Your task to perform on an android device: Clear the cart on bestbuy. Image 0: 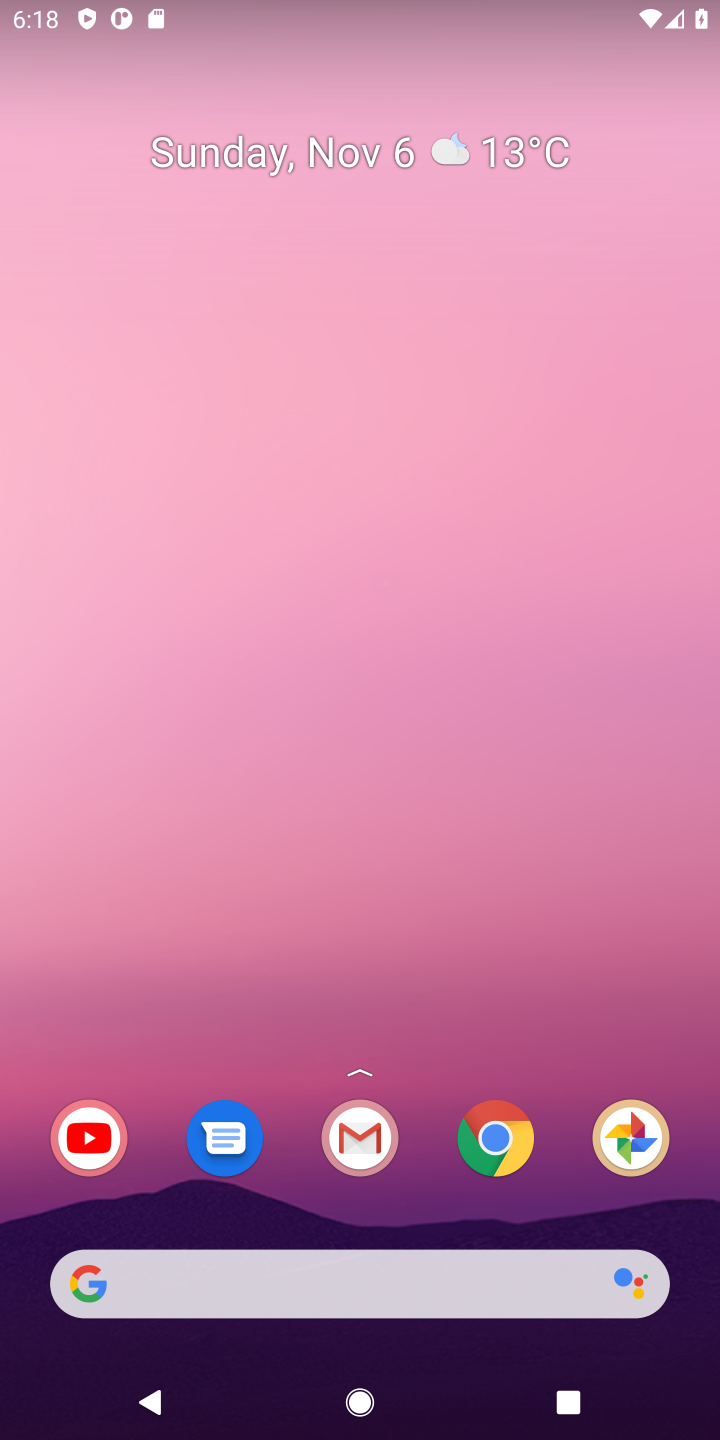
Step 0: drag from (472, 1268) to (462, 262)
Your task to perform on an android device: Clear the cart on bestbuy. Image 1: 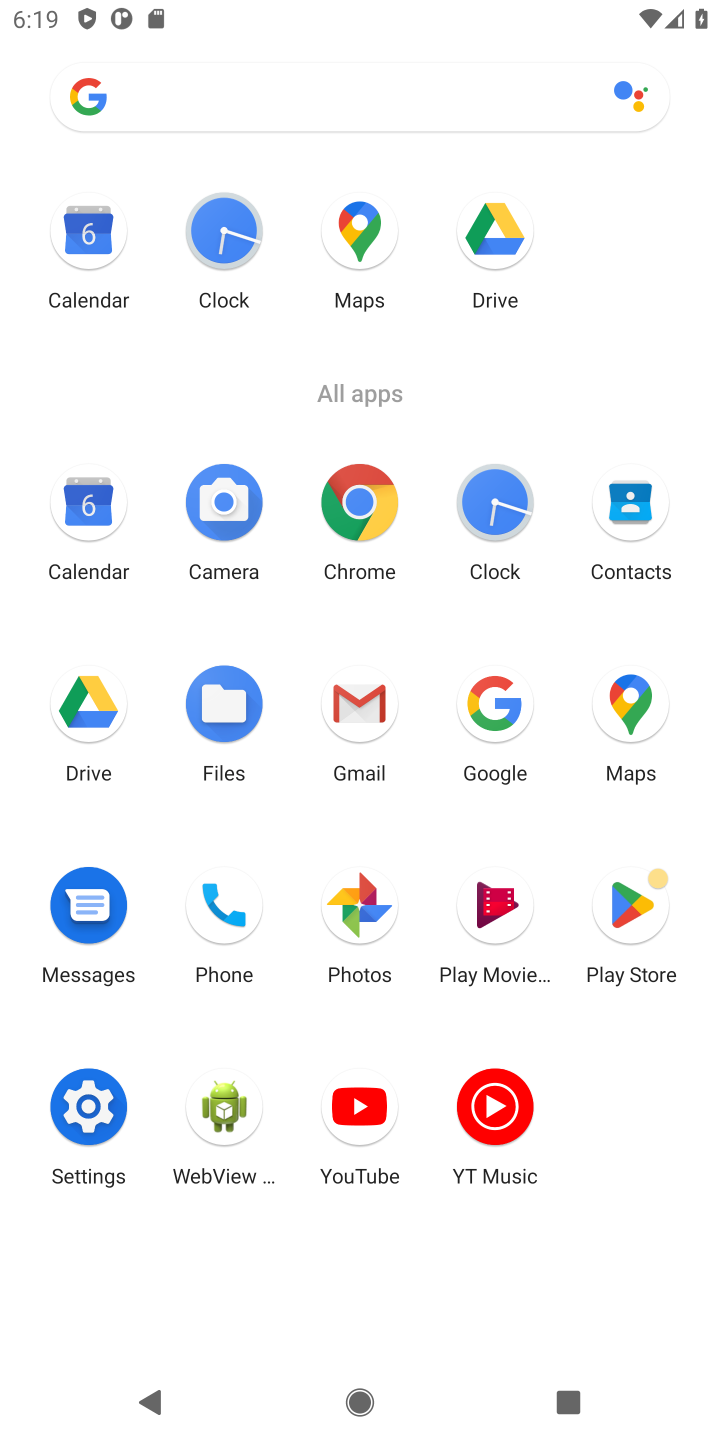
Step 1: click (515, 695)
Your task to perform on an android device: Clear the cart on bestbuy. Image 2: 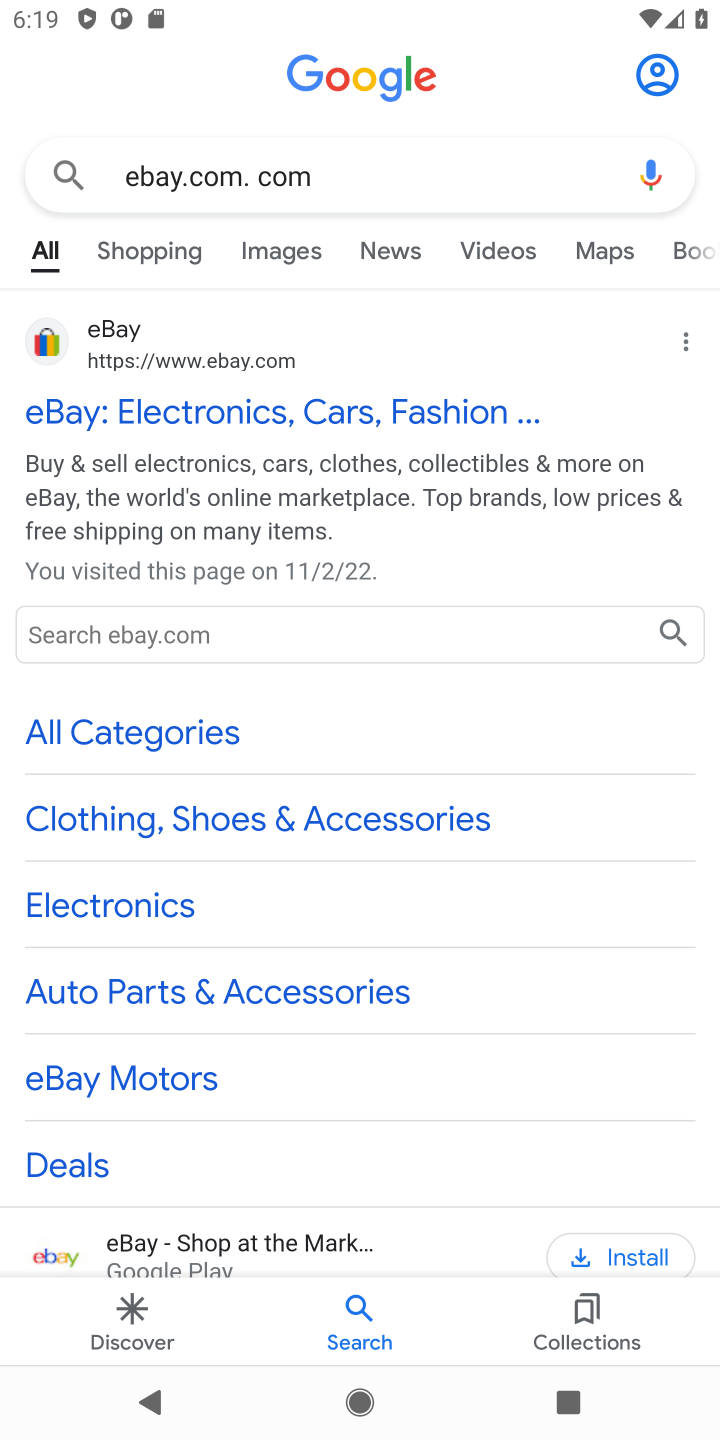
Step 2: click (376, 166)
Your task to perform on an android device: Clear the cart on bestbuy. Image 3: 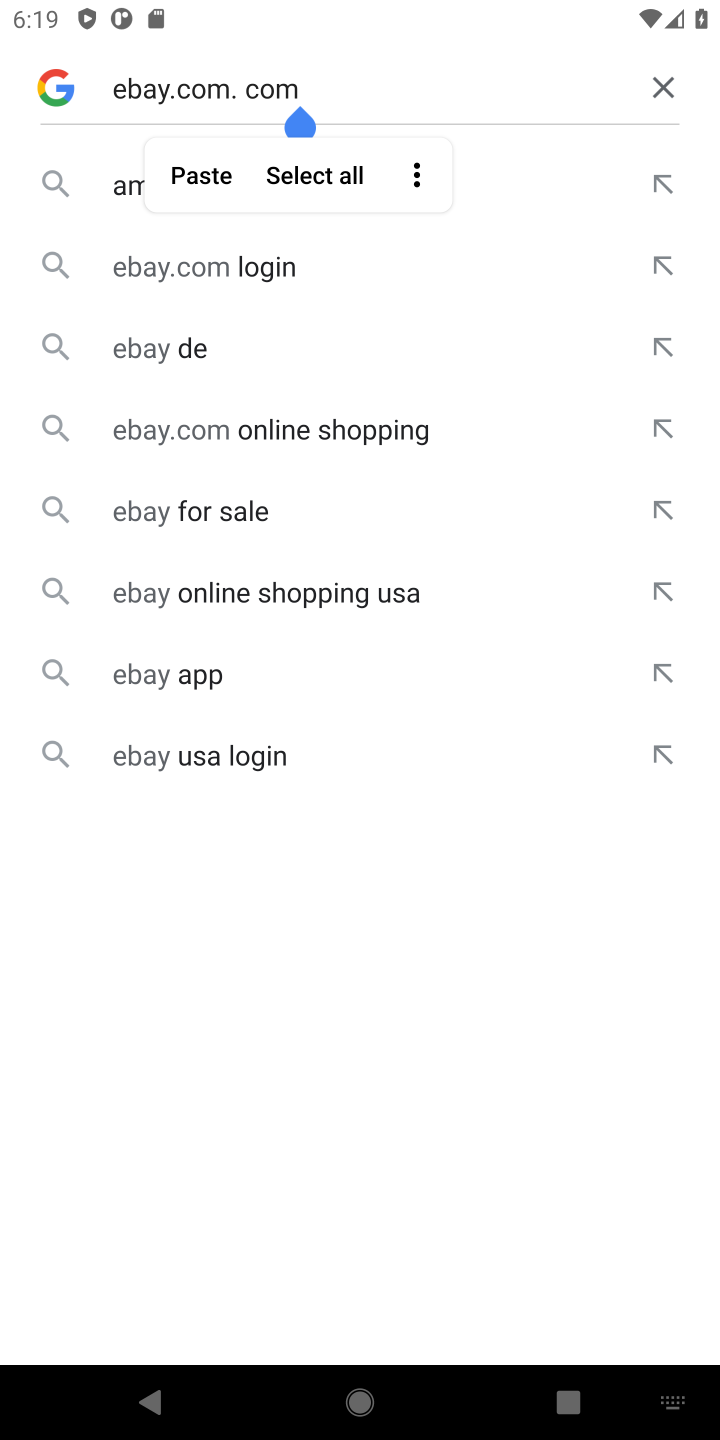
Step 3: click (669, 81)
Your task to perform on an android device: Clear the cart on bestbuy. Image 4: 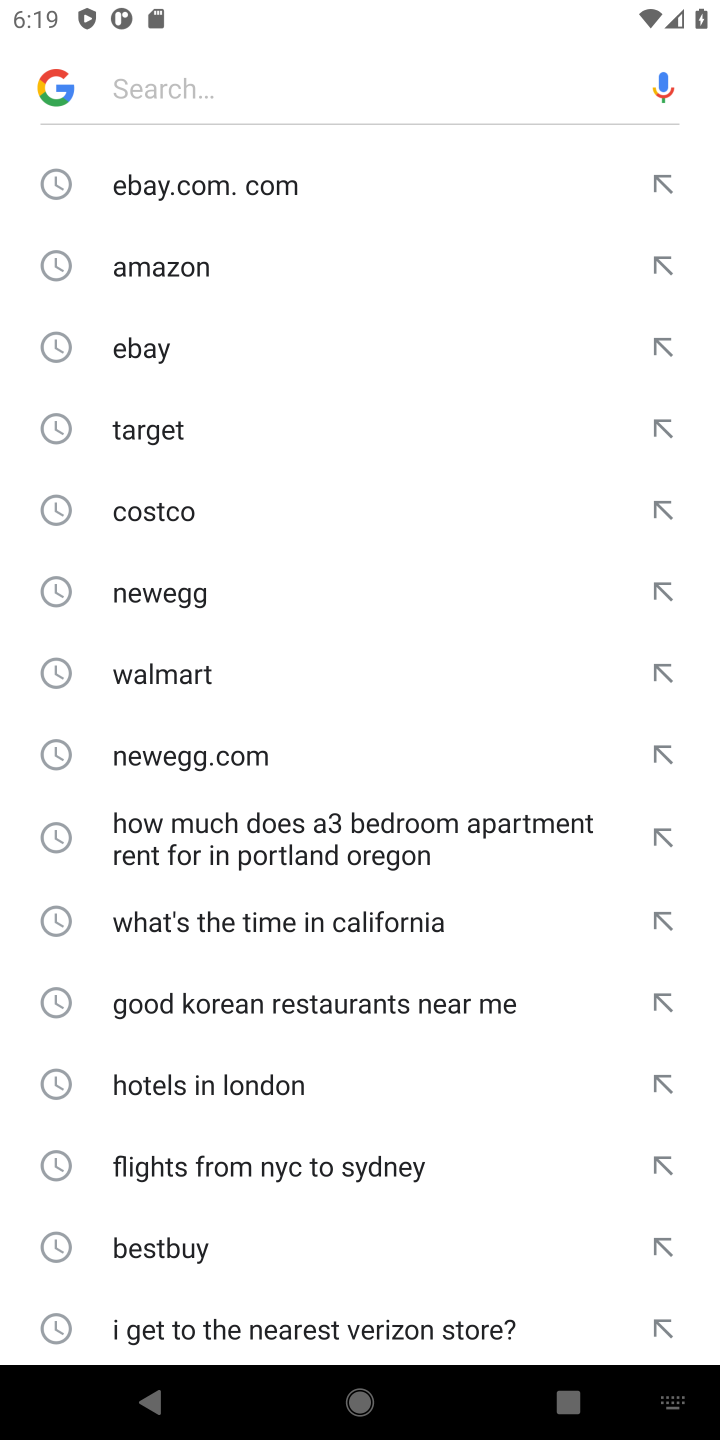
Step 4: click (339, 92)
Your task to perform on an android device: Clear the cart on bestbuy. Image 5: 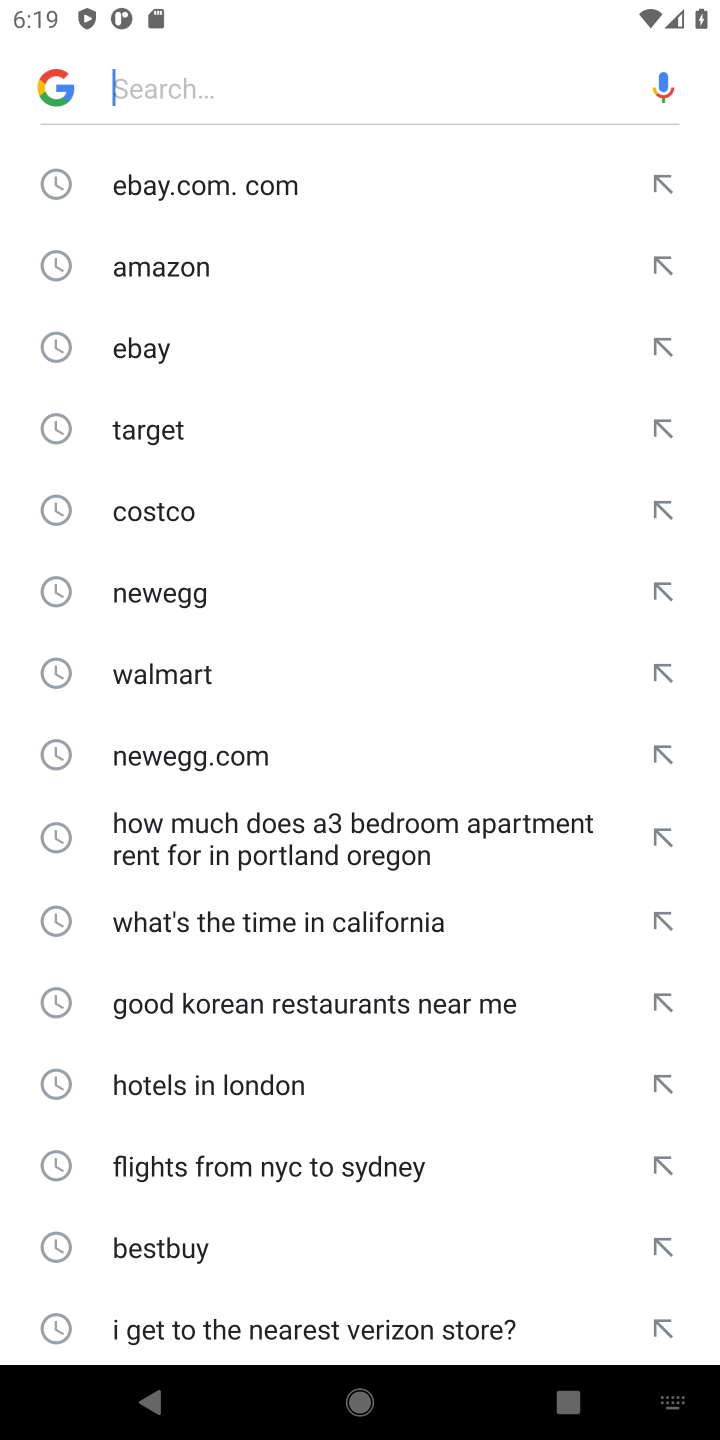
Step 5: type "bestbuy "
Your task to perform on an android device: Clear the cart on bestbuy. Image 6: 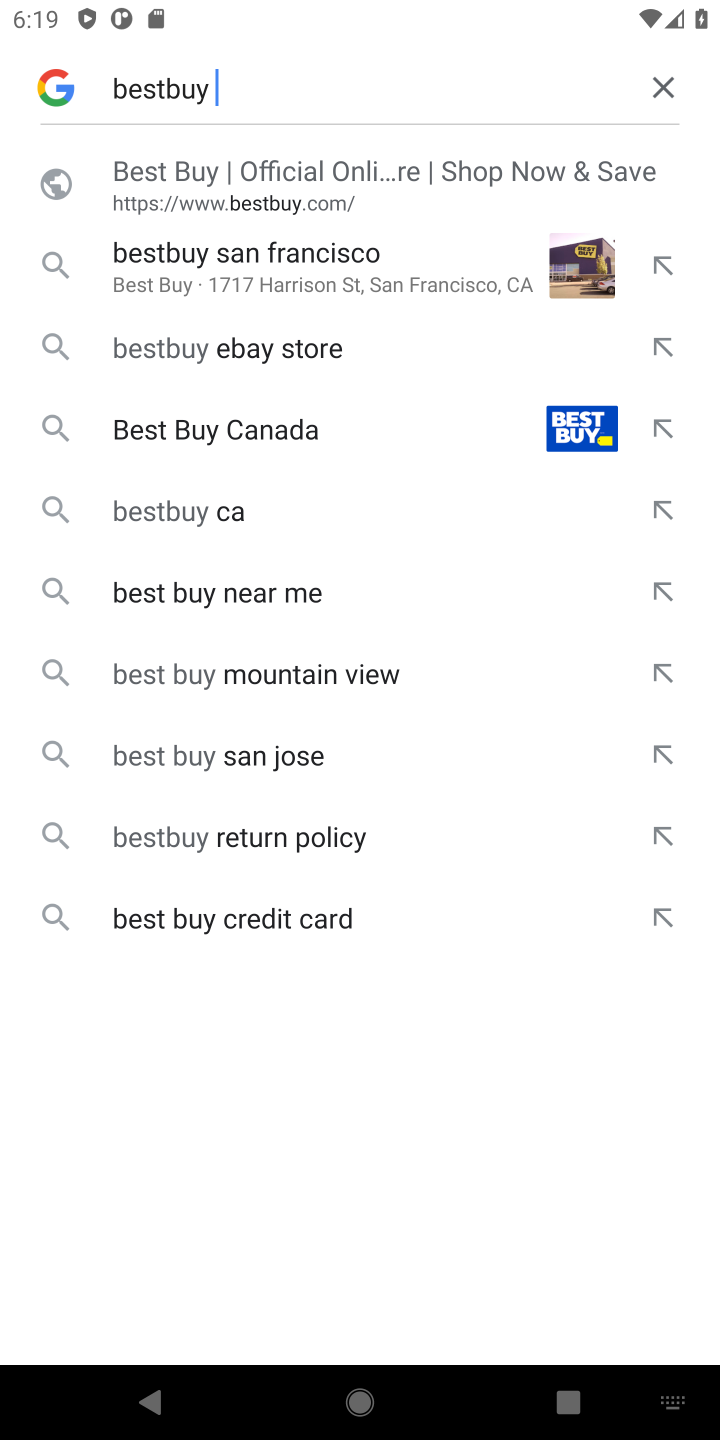
Step 6: click (227, 436)
Your task to perform on an android device: Clear the cart on bestbuy. Image 7: 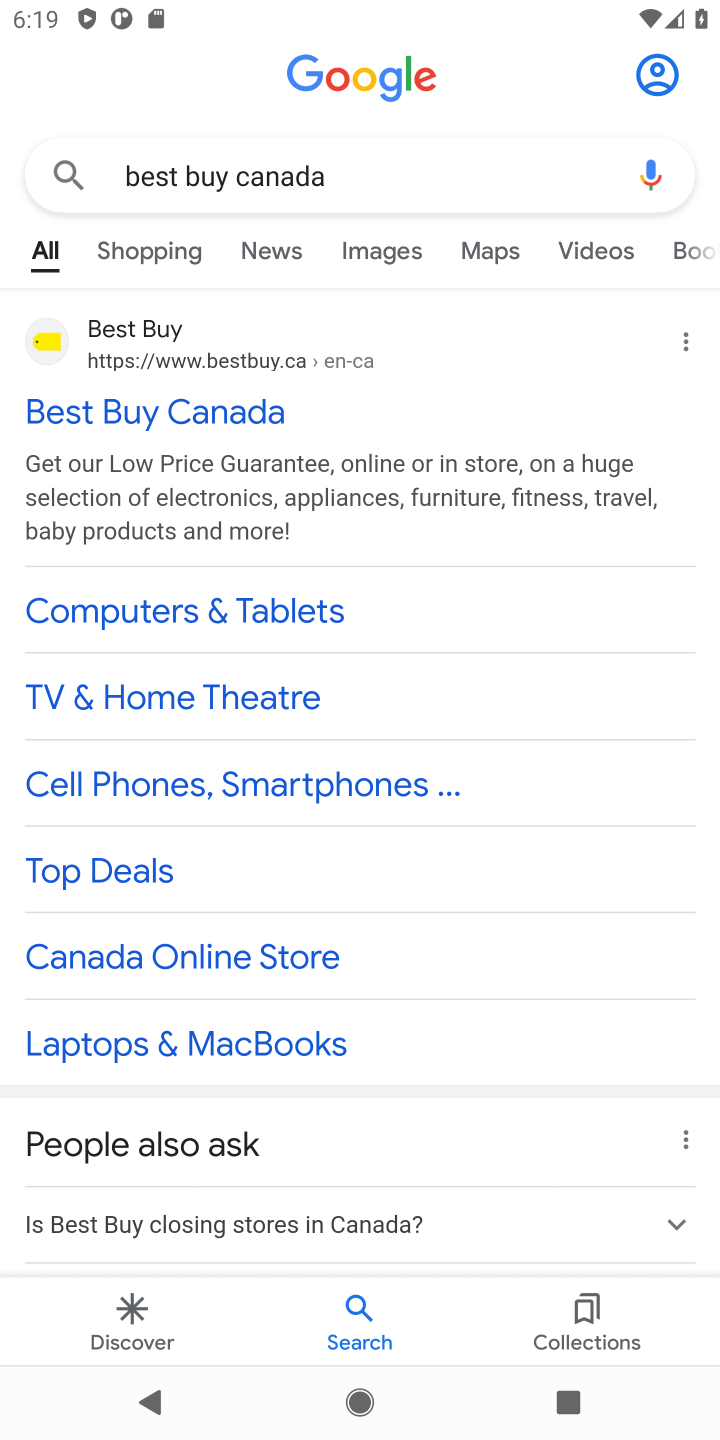
Step 7: click (40, 336)
Your task to perform on an android device: Clear the cart on bestbuy. Image 8: 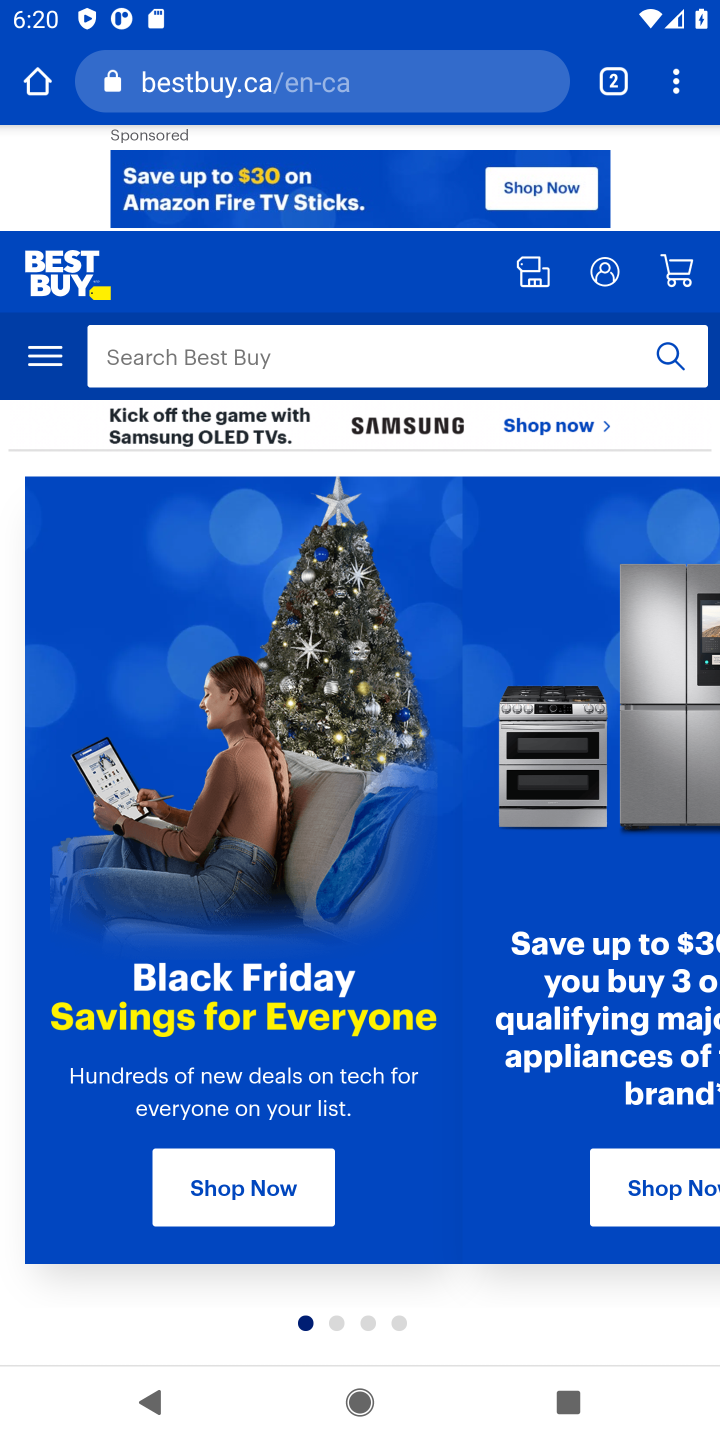
Step 8: click (683, 270)
Your task to perform on an android device: Clear the cart on bestbuy. Image 9: 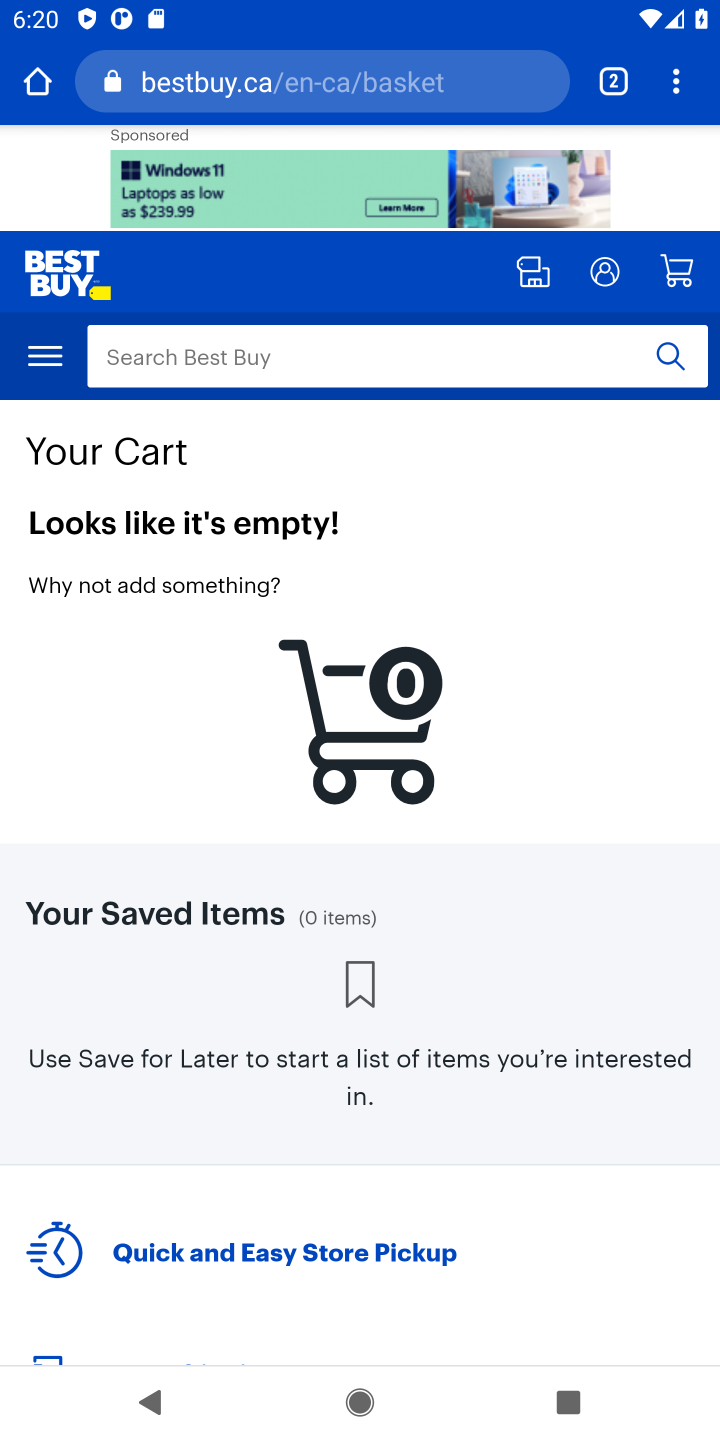
Step 9: task complete